Your task to perform on an android device: Open Reddit.com Image 0: 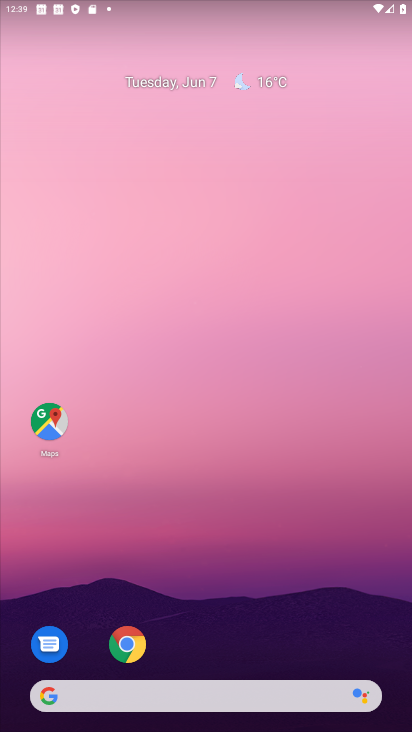
Step 0: drag from (172, 502) to (160, 116)
Your task to perform on an android device: Open Reddit.com Image 1: 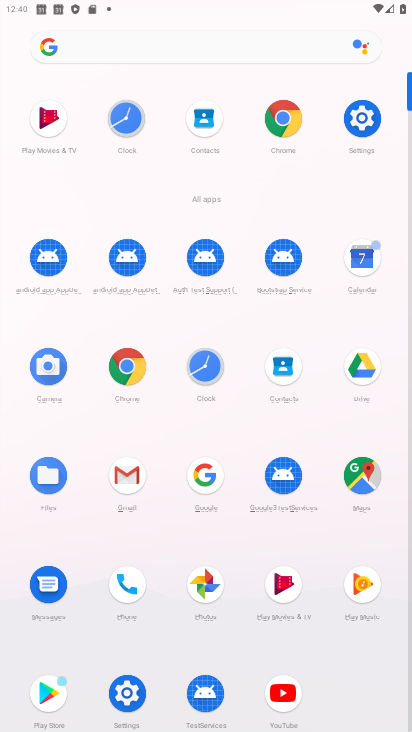
Step 1: click (281, 119)
Your task to perform on an android device: Open Reddit.com Image 2: 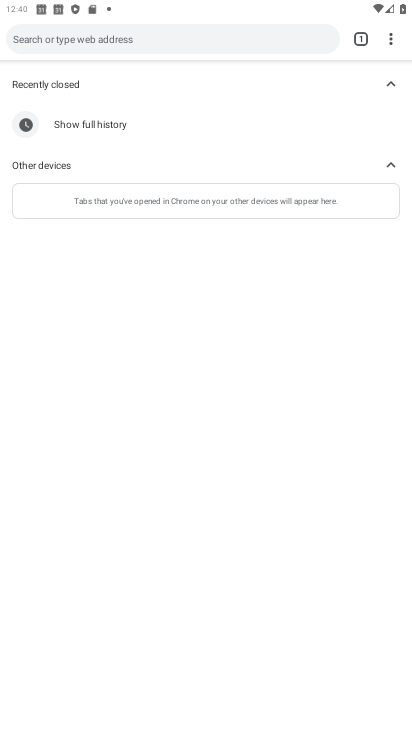
Step 2: click (130, 39)
Your task to perform on an android device: Open Reddit.com Image 3: 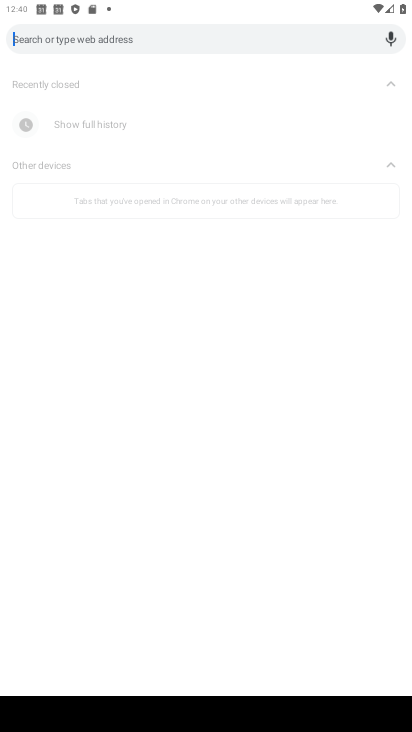
Step 3: type "Reddit.com"
Your task to perform on an android device: Open Reddit.com Image 4: 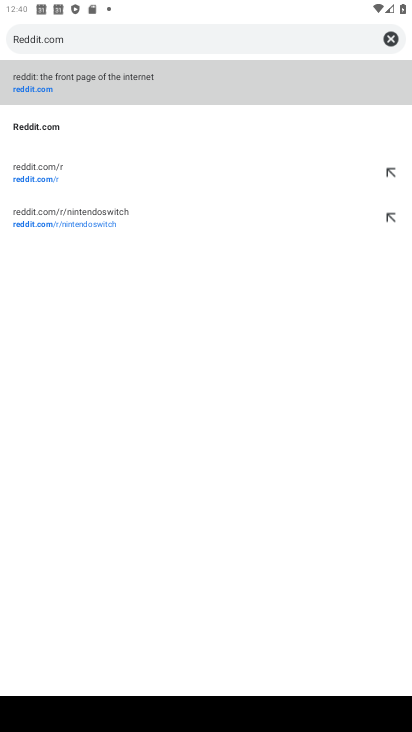
Step 4: click (31, 129)
Your task to perform on an android device: Open Reddit.com Image 5: 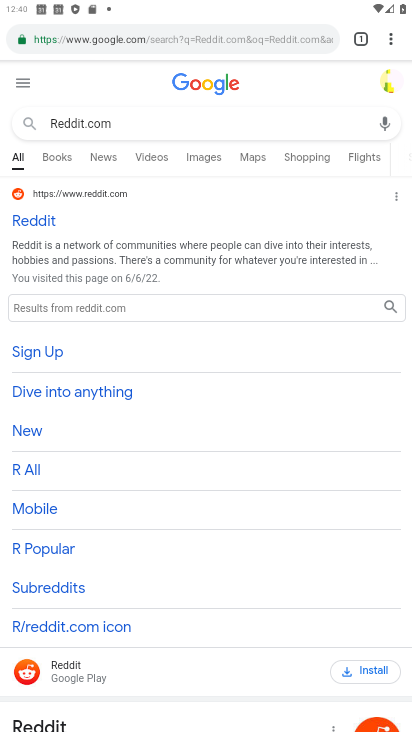
Step 5: task complete